Your task to perform on an android device: turn off wifi Image 0: 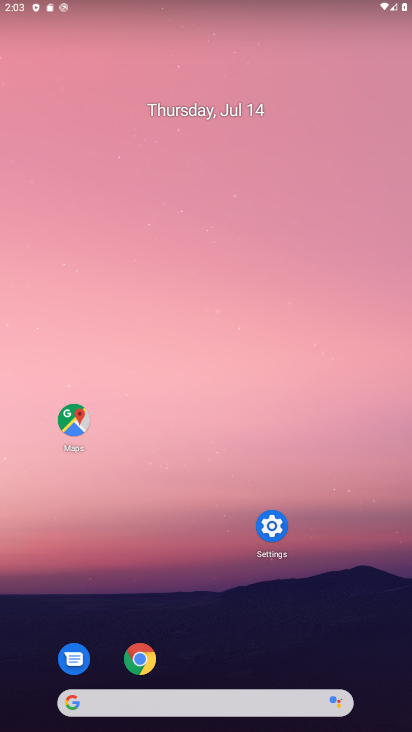
Step 0: click (272, 542)
Your task to perform on an android device: turn off wifi Image 1: 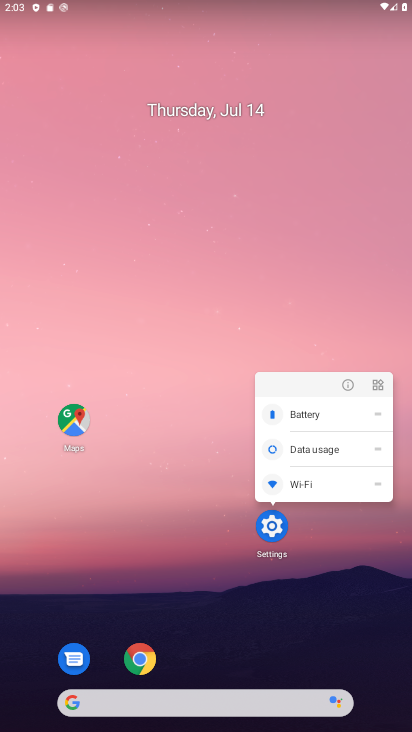
Step 1: click (272, 540)
Your task to perform on an android device: turn off wifi Image 2: 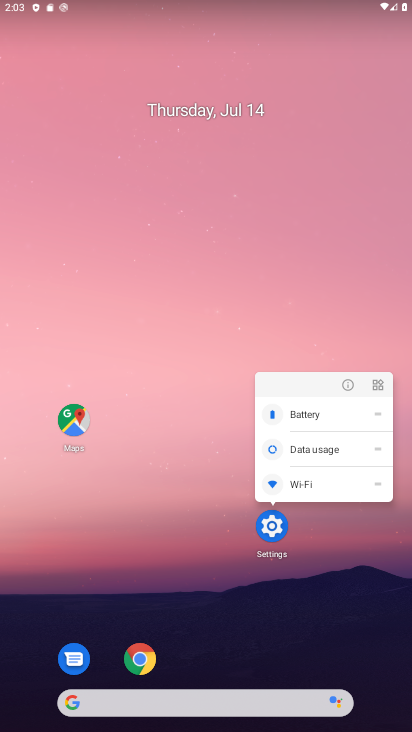
Step 2: click (272, 540)
Your task to perform on an android device: turn off wifi Image 3: 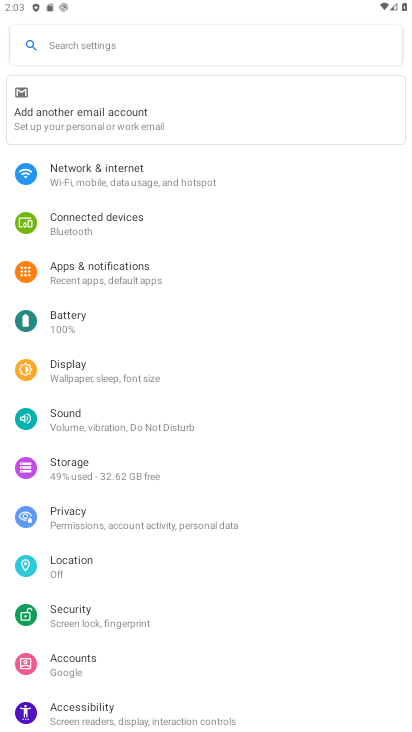
Step 3: click (148, 182)
Your task to perform on an android device: turn off wifi Image 4: 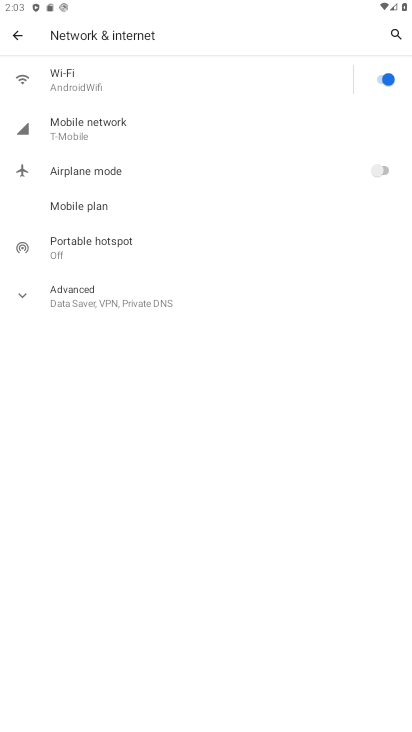
Step 4: click (92, 75)
Your task to perform on an android device: turn off wifi Image 5: 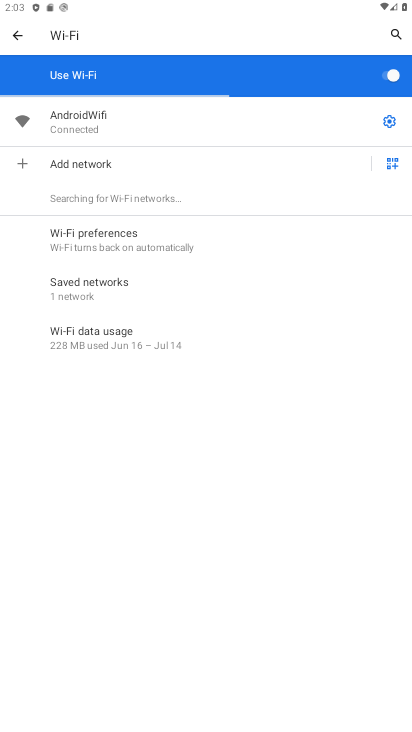
Step 5: click (389, 72)
Your task to perform on an android device: turn off wifi Image 6: 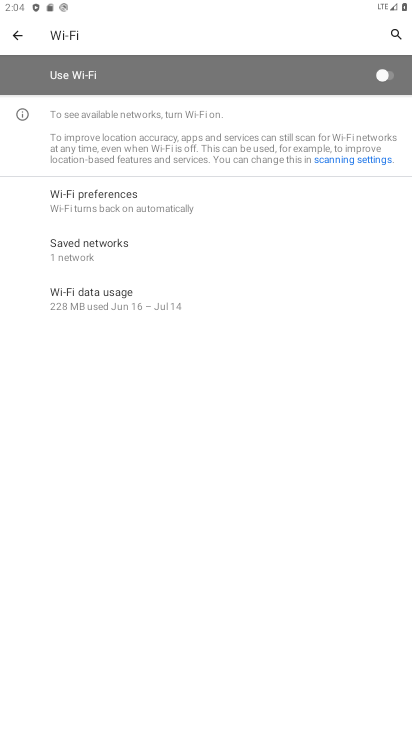
Step 6: task complete